Your task to perform on an android device: see sites visited before in the chrome app Image 0: 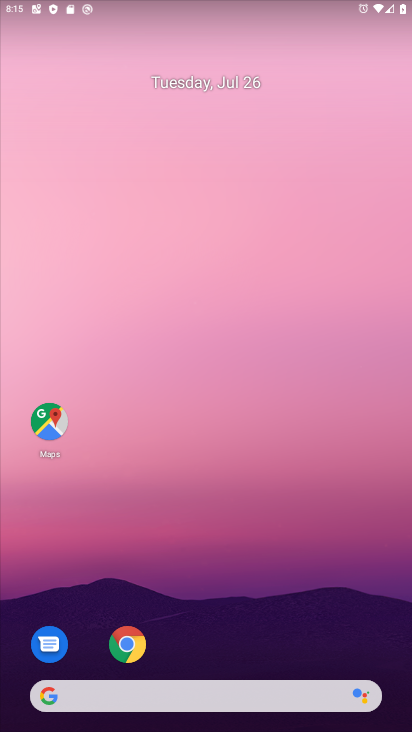
Step 0: drag from (189, 682) to (205, 191)
Your task to perform on an android device: see sites visited before in the chrome app Image 1: 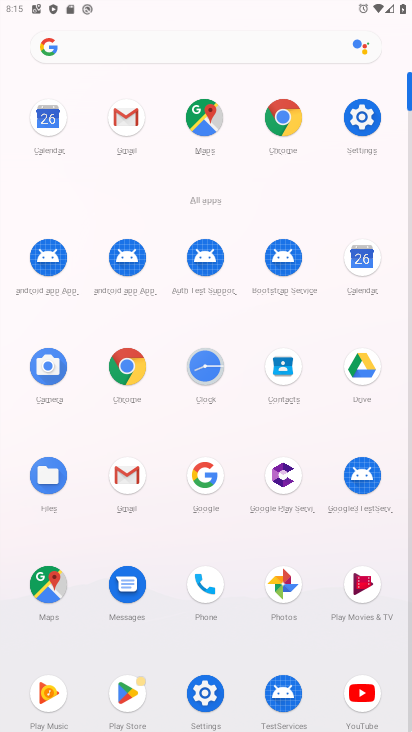
Step 1: click (135, 371)
Your task to perform on an android device: see sites visited before in the chrome app Image 2: 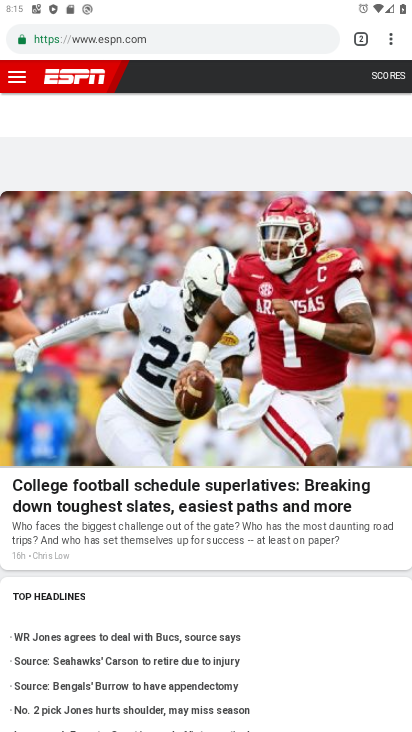
Step 2: click (392, 38)
Your task to perform on an android device: see sites visited before in the chrome app Image 3: 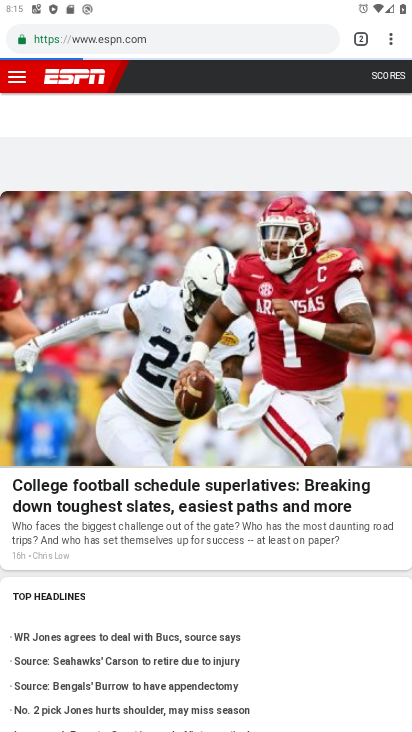
Step 3: click (392, 38)
Your task to perform on an android device: see sites visited before in the chrome app Image 4: 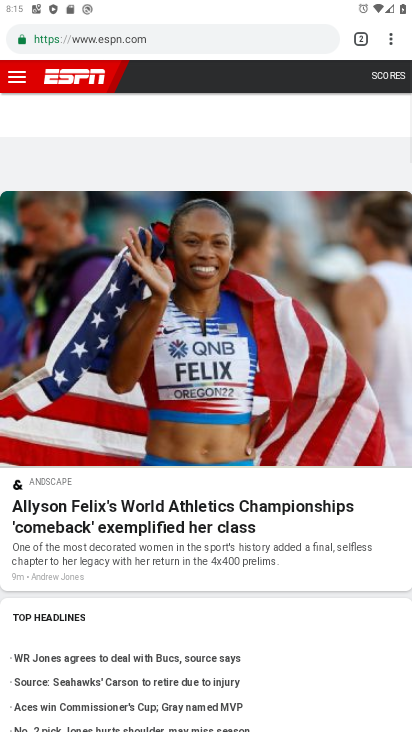
Step 4: click (392, 38)
Your task to perform on an android device: see sites visited before in the chrome app Image 5: 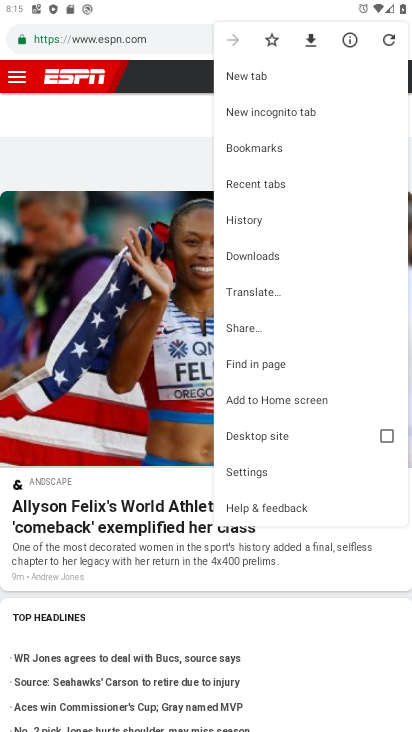
Step 5: click (257, 227)
Your task to perform on an android device: see sites visited before in the chrome app Image 6: 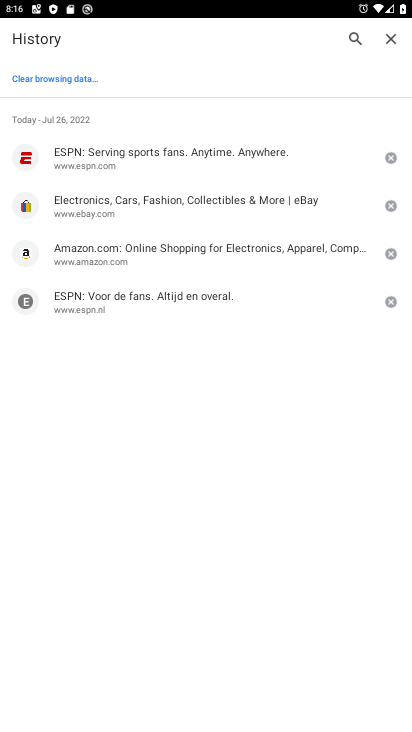
Step 6: task complete